Your task to perform on an android device: Search for "macbook" on target.com, select the first entry, and add it to the cart. Image 0: 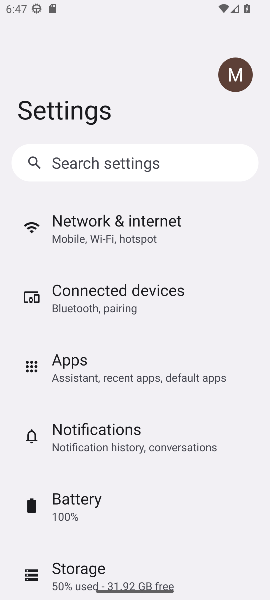
Step 0: press home button
Your task to perform on an android device: Search for "macbook" on target.com, select the first entry, and add it to the cart. Image 1: 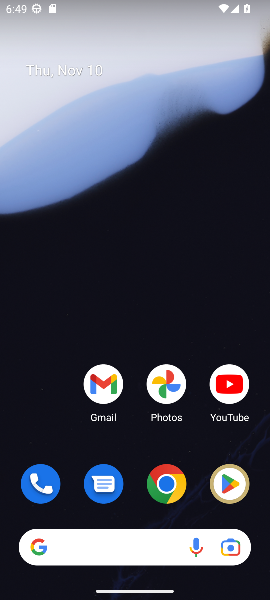
Step 1: click (170, 483)
Your task to perform on an android device: Search for "macbook" on target.com, select the first entry, and add it to the cart. Image 2: 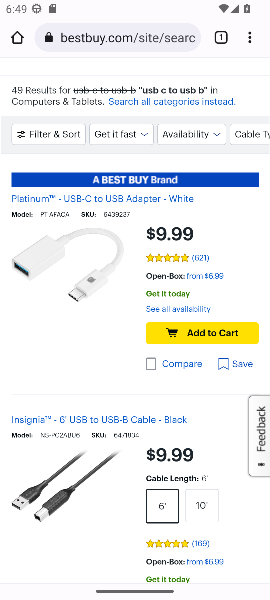
Step 2: click (128, 37)
Your task to perform on an android device: Search for "macbook" on target.com, select the first entry, and add it to the cart. Image 3: 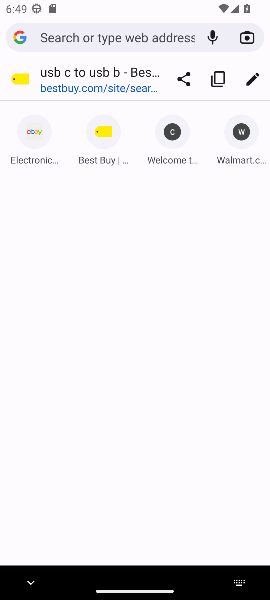
Step 3: type "target.com"
Your task to perform on an android device: Search for "macbook" on target.com, select the first entry, and add it to the cart. Image 4: 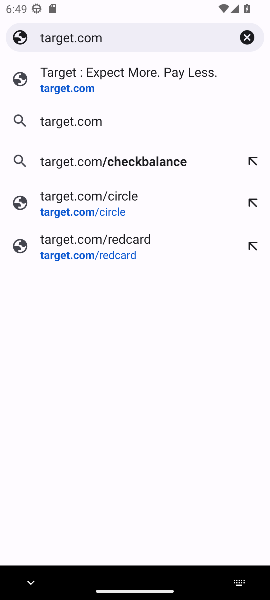
Step 4: click (65, 89)
Your task to perform on an android device: Search for "macbook" on target.com, select the first entry, and add it to the cart. Image 5: 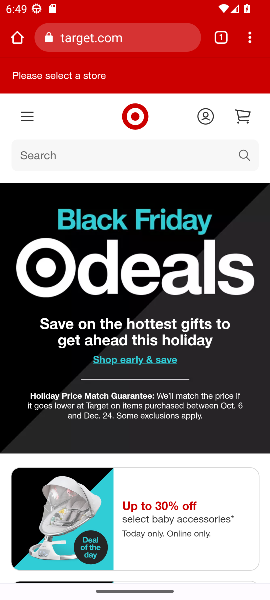
Step 5: click (238, 155)
Your task to perform on an android device: Search for "macbook" on target.com, select the first entry, and add it to the cart. Image 6: 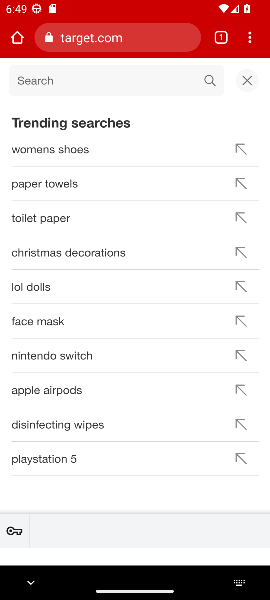
Step 6: type "macbook"
Your task to perform on an android device: Search for "macbook" on target.com, select the first entry, and add it to the cart. Image 7: 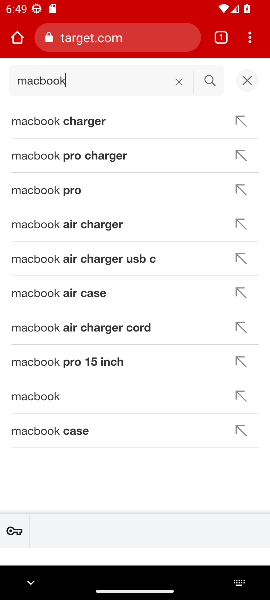
Step 7: click (48, 395)
Your task to perform on an android device: Search for "macbook" on target.com, select the first entry, and add it to the cart. Image 8: 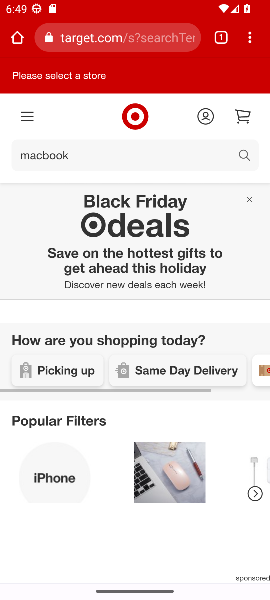
Step 8: task complete